Your task to perform on an android device: allow notifications from all sites in the chrome app Image 0: 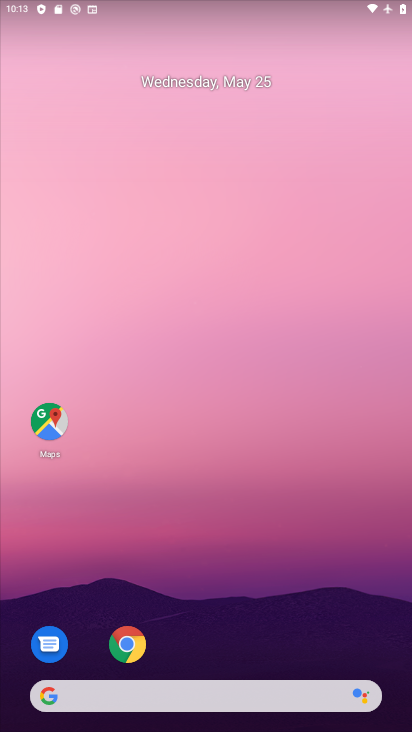
Step 0: click (134, 644)
Your task to perform on an android device: allow notifications from all sites in the chrome app Image 1: 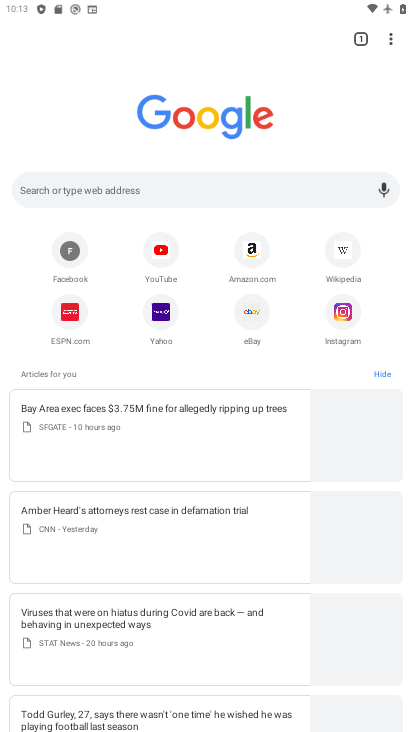
Step 1: click (385, 41)
Your task to perform on an android device: allow notifications from all sites in the chrome app Image 2: 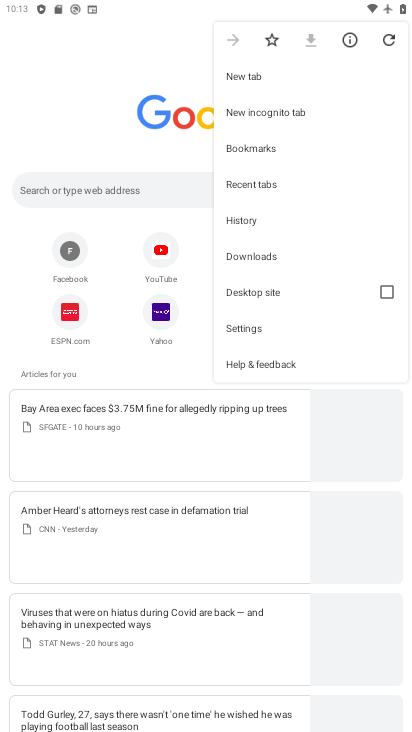
Step 2: click (274, 327)
Your task to perform on an android device: allow notifications from all sites in the chrome app Image 3: 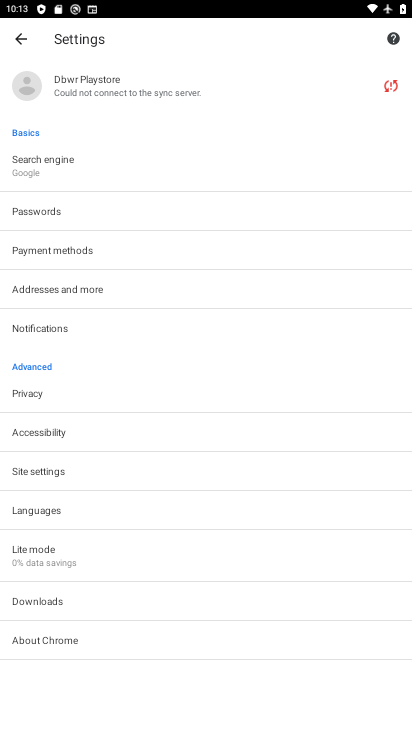
Step 3: click (38, 469)
Your task to perform on an android device: allow notifications from all sites in the chrome app Image 4: 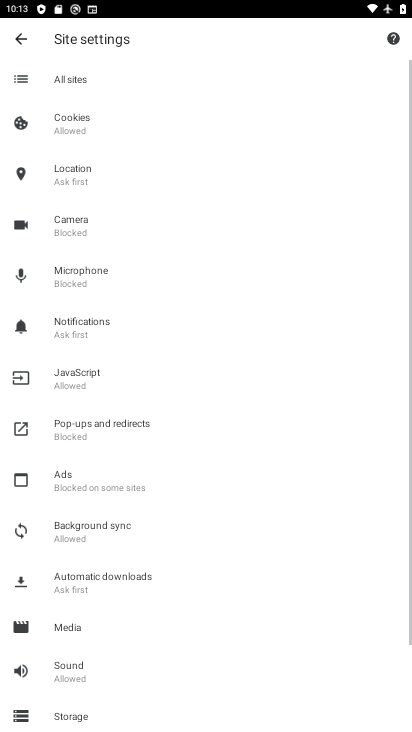
Step 4: click (97, 324)
Your task to perform on an android device: allow notifications from all sites in the chrome app Image 5: 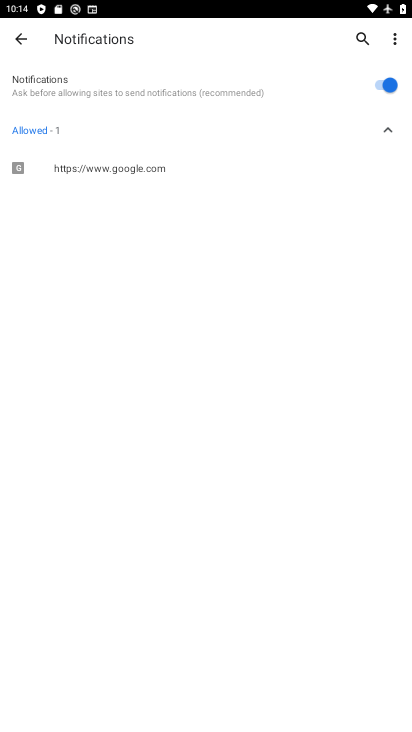
Step 5: task complete